Your task to perform on an android device: What's the weather? Image 0: 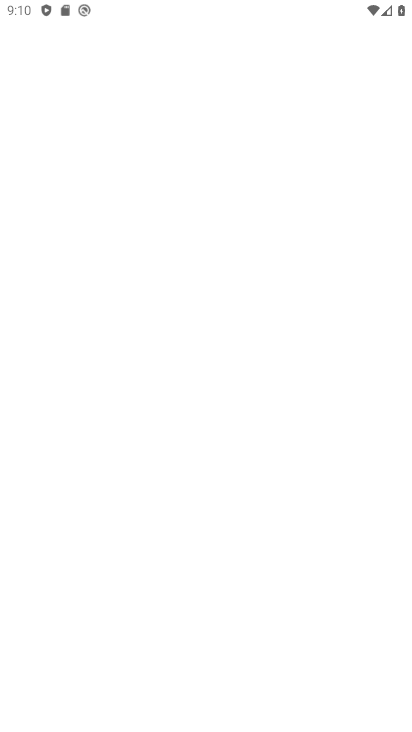
Step 0: press home button
Your task to perform on an android device: What's the weather? Image 1: 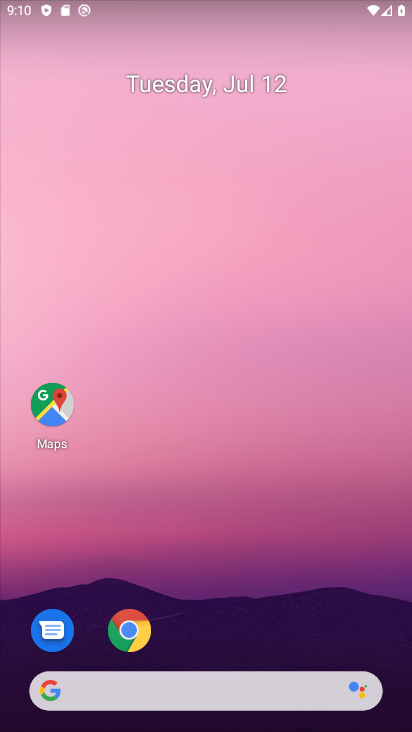
Step 1: click (212, 694)
Your task to perform on an android device: What's the weather? Image 2: 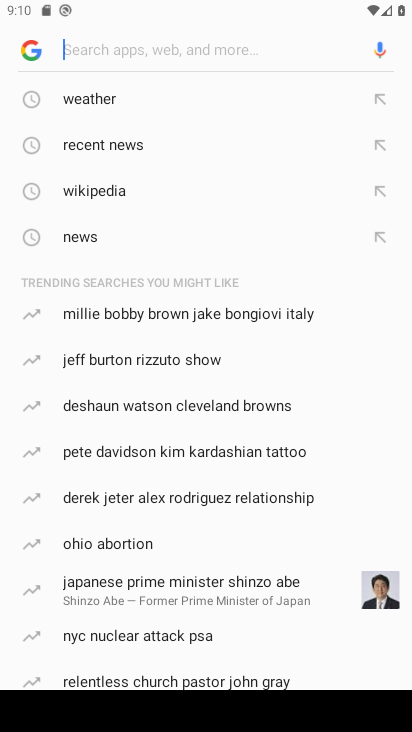
Step 2: type "weather"
Your task to perform on an android device: What's the weather? Image 3: 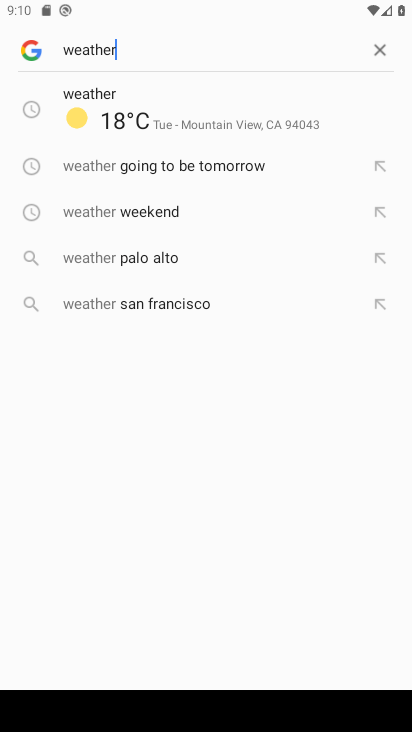
Step 3: click (209, 138)
Your task to perform on an android device: What's the weather? Image 4: 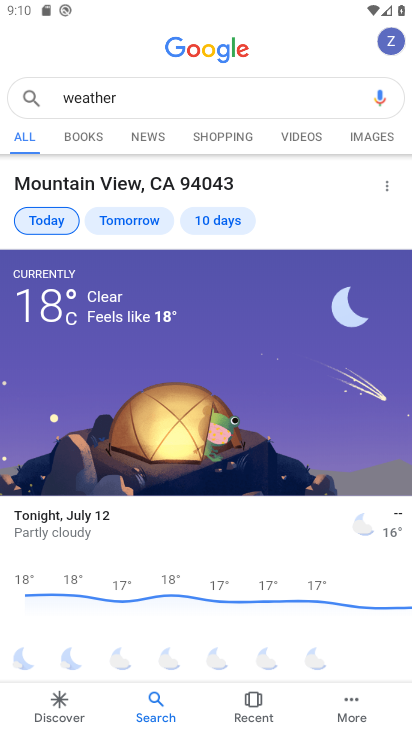
Step 4: task complete